Your task to perform on an android device: find snoozed emails in the gmail app Image 0: 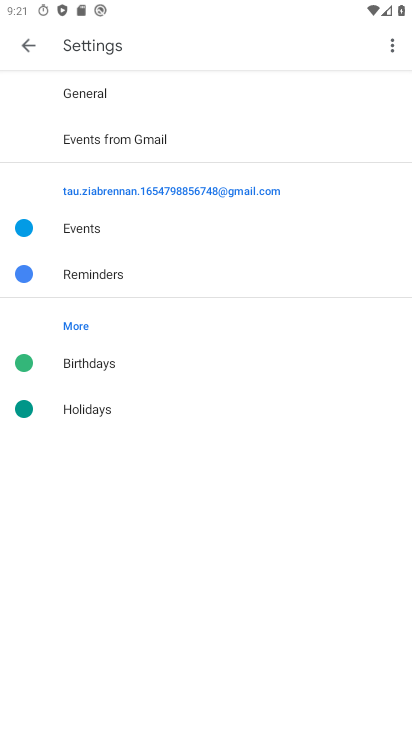
Step 0: press home button
Your task to perform on an android device: find snoozed emails in the gmail app Image 1: 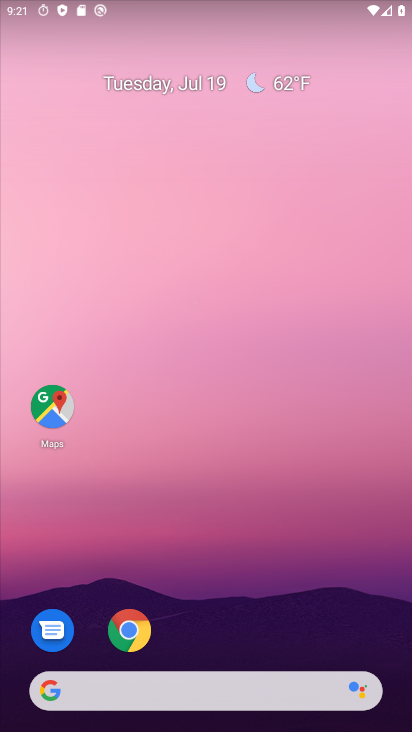
Step 1: drag from (216, 668) to (230, 4)
Your task to perform on an android device: find snoozed emails in the gmail app Image 2: 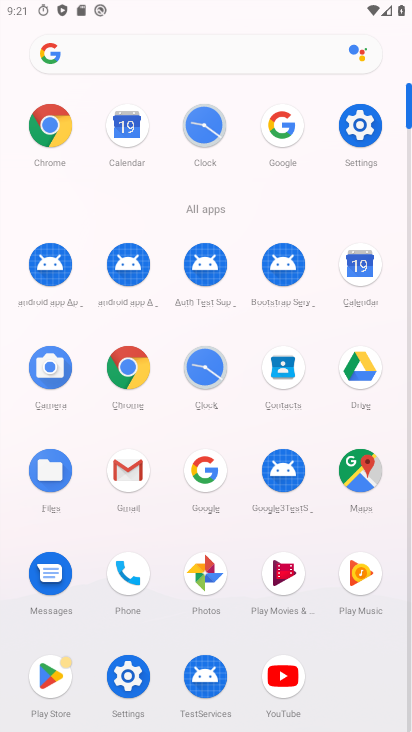
Step 2: click (137, 466)
Your task to perform on an android device: find snoozed emails in the gmail app Image 3: 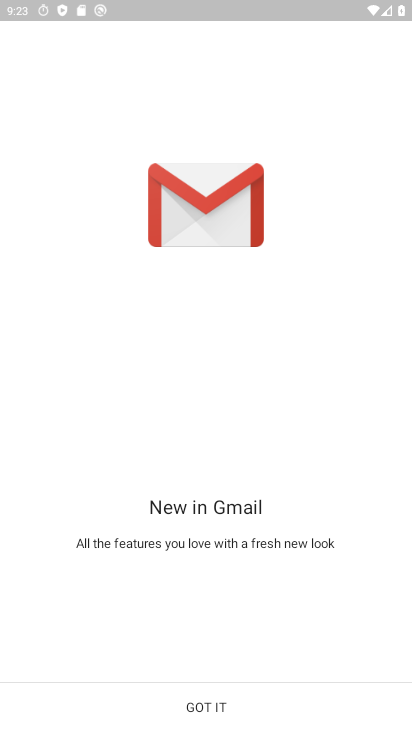
Step 3: click (177, 707)
Your task to perform on an android device: find snoozed emails in the gmail app Image 4: 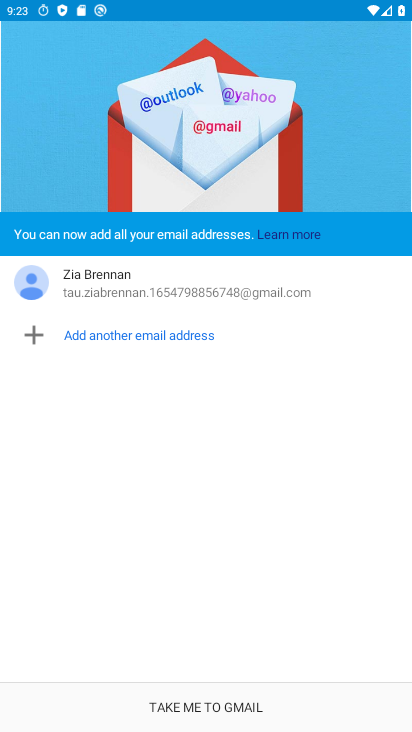
Step 4: click (200, 720)
Your task to perform on an android device: find snoozed emails in the gmail app Image 5: 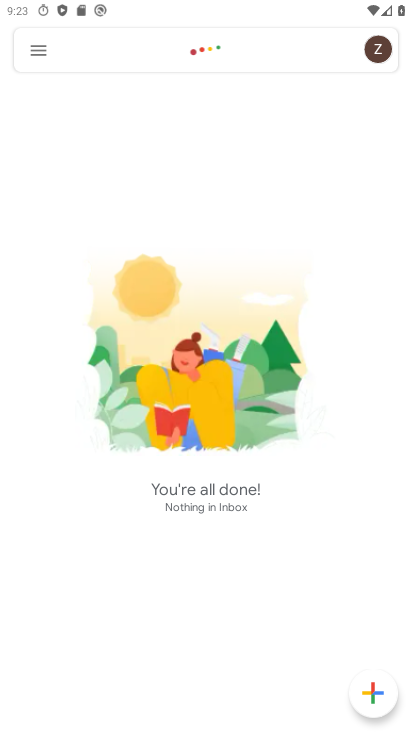
Step 5: click (32, 52)
Your task to perform on an android device: find snoozed emails in the gmail app Image 6: 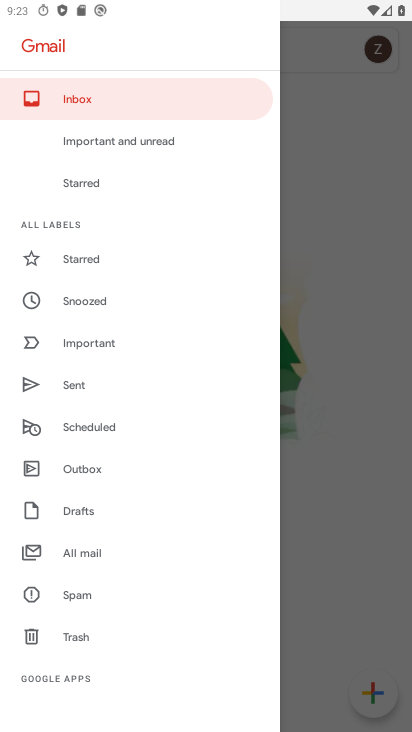
Step 6: click (63, 308)
Your task to perform on an android device: find snoozed emails in the gmail app Image 7: 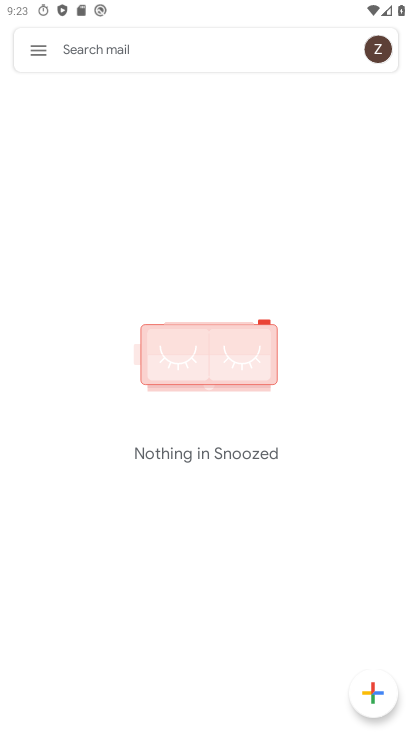
Step 7: task complete